Your task to perform on an android device: Go to Yahoo.com Image 0: 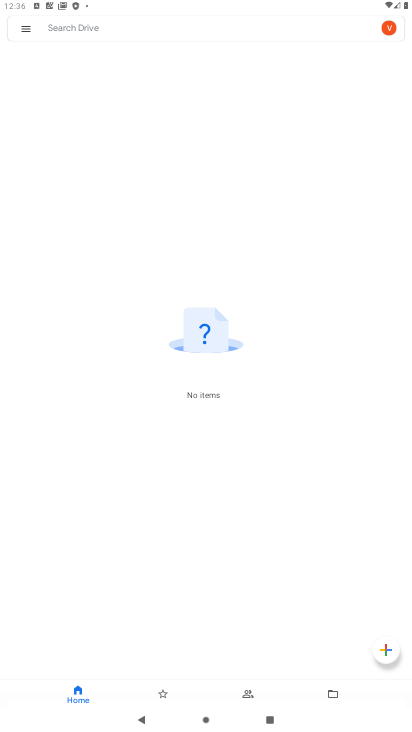
Step 0: press home button
Your task to perform on an android device: Go to Yahoo.com Image 1: 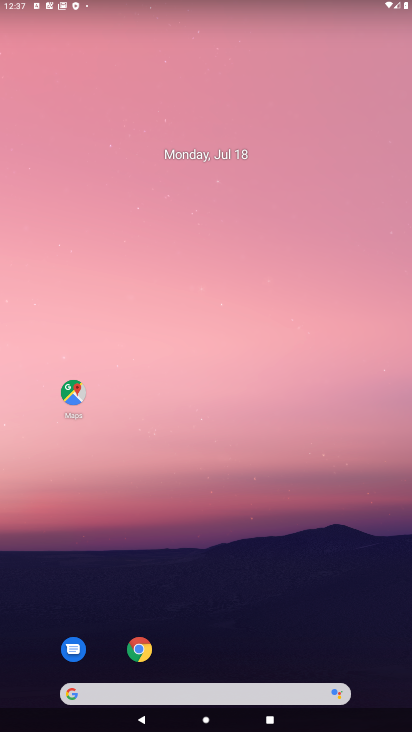
Step 1: click (139, 649)
Your task to perform on an android device: Go to Yahoo.com Image 2: 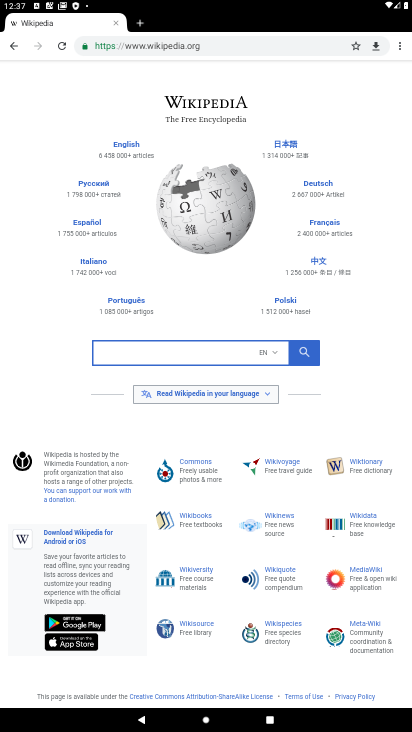
Step 2: click (229, 39)
Your task to perform on an android device: Go to Yahoo.com Image 3: 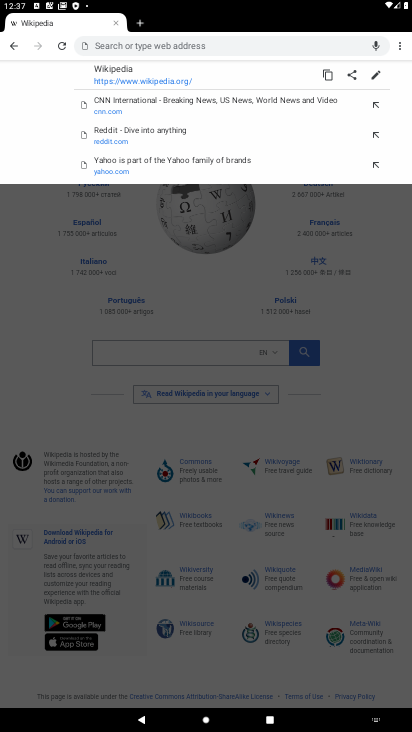
Step 3: type "yahoo.com"
Your task to perform on an android device: Go to Yahoo.com Image 4: 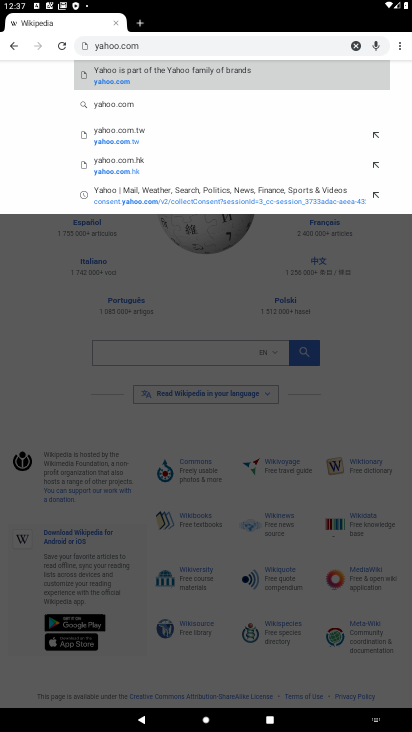
Step 4: click (128, 74)
Your task to perform on an android device: Go to Yahoo.com Image 5: 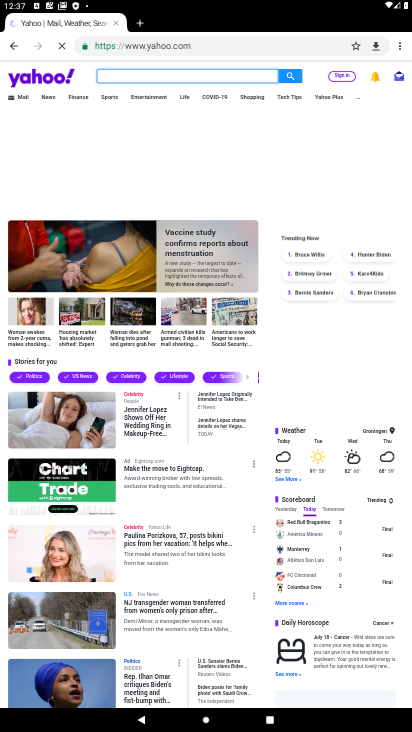
Step 5: task complete